Your task to perform on an android device: Find coffee shops on Maps Image 0: 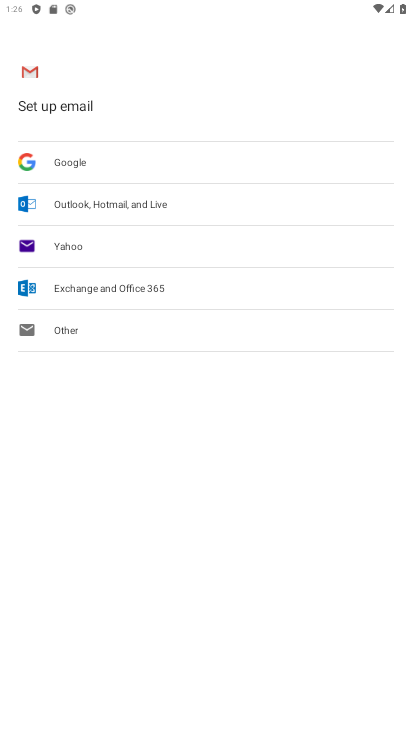
Step 0: press home button
Your task to perform on an android device: Find coffee shops on Maps Image 1: 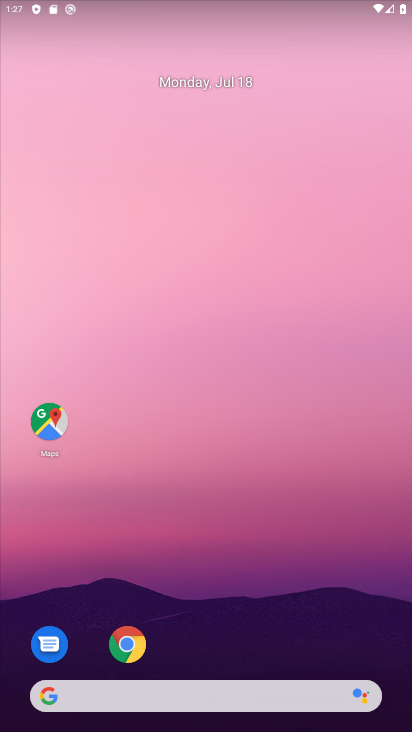
Step 1: click (43, 417)
Your task to perform on an android device: Find coffee shops on Maps Image 2: 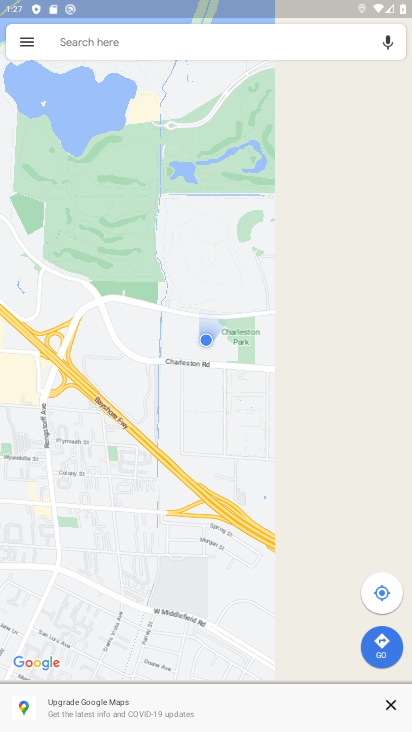
Step 2: click (48, 421)
Your task to perform on an android device: Find coffee shops on Maps Image 3: 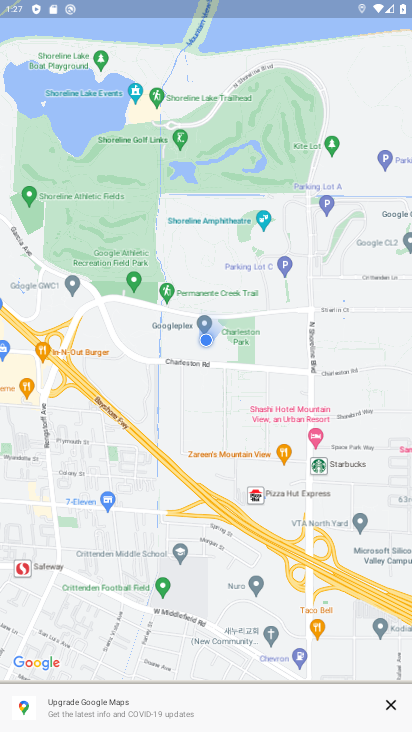
Step 3: click (177, 31)
Your task to perform on an android device: Find coffee shops on Maps Image 4: 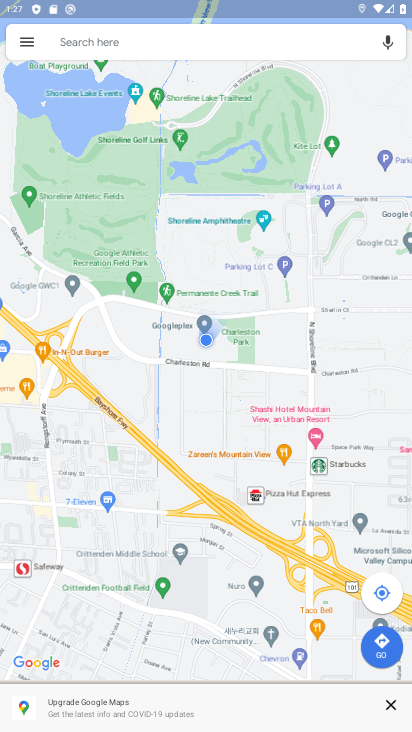
Step 4: click (177, 31)
Your task to perform on an android device: Find coffee shops on Maps Image 5: 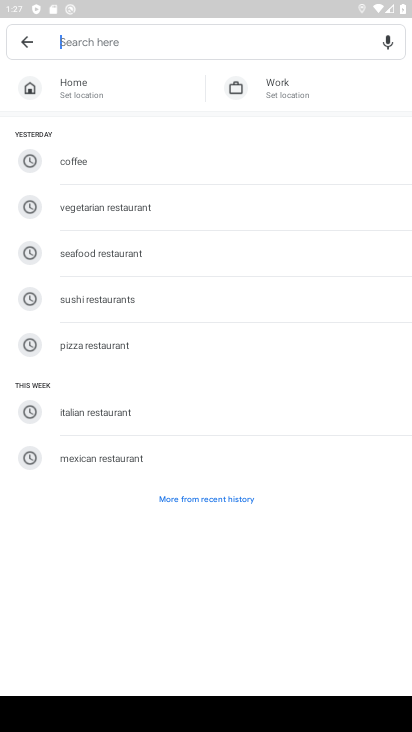
Step 5: type "coffee shops"
Your task to perform on an android device: Find coffee shops on Maps Image 6: 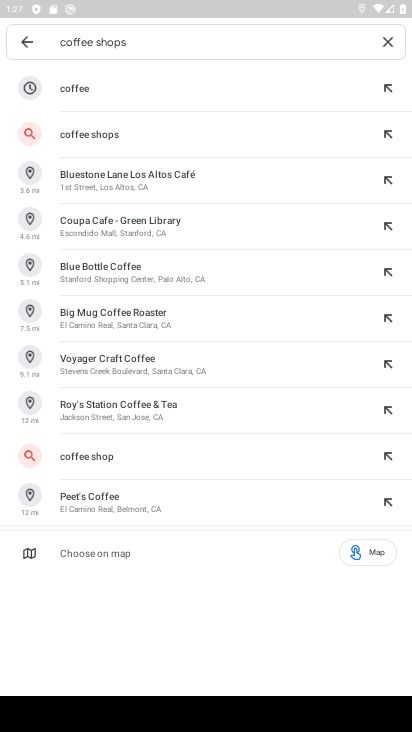
Step 6: click (106, 123)
Your task to perform on an android device: Find coffee shops on Maps Image 7: 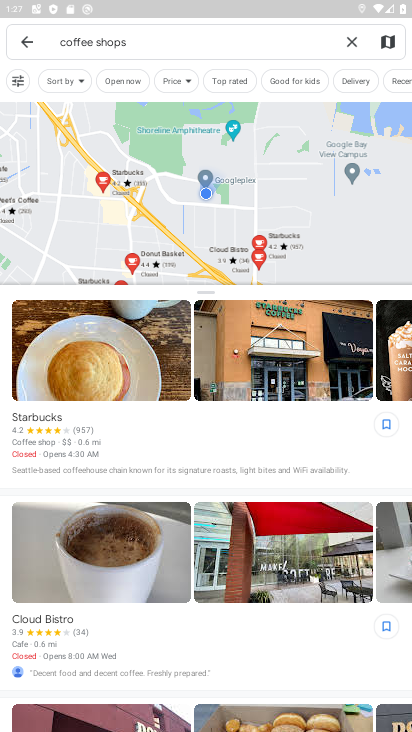
Step 7: task complete